Your task to perform on an android device: Go to Amazon Image 0: 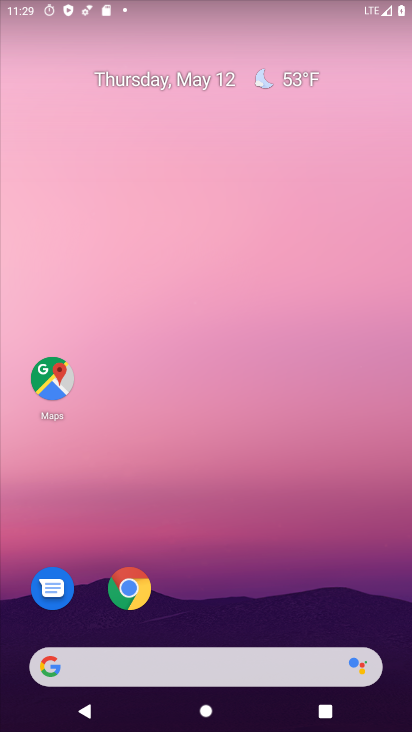
Step 0: click (130, 587)
Your task to perform on an android device: Go to Amazon Image 1: 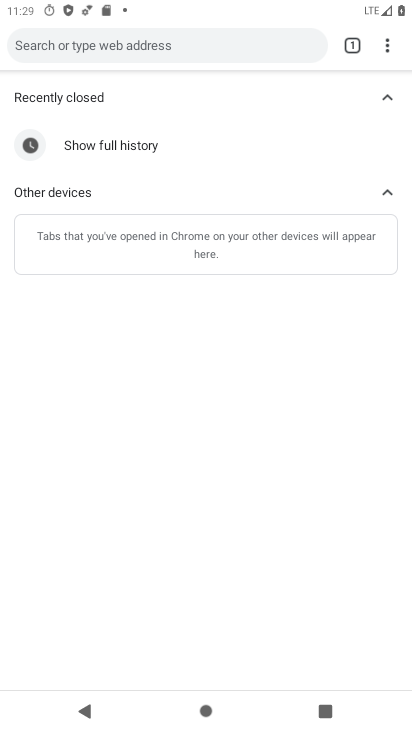
Step 1: click (128, 47)
Your task to perform on an android device: Go to Amazon Image 2: 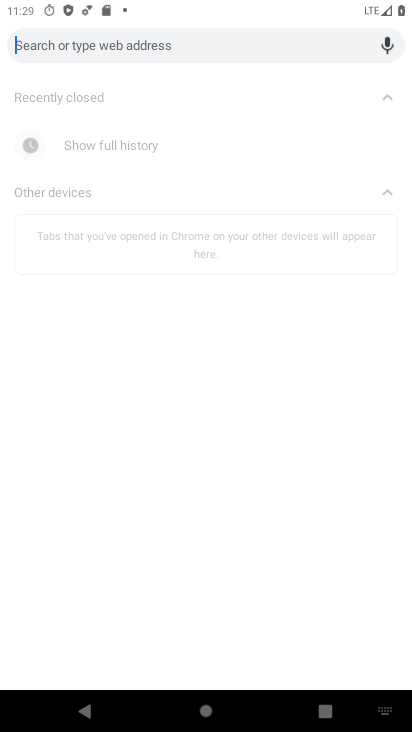
Step 2: type "amazon"
Your task to perform on an android device: Go to Amazon Image 3: 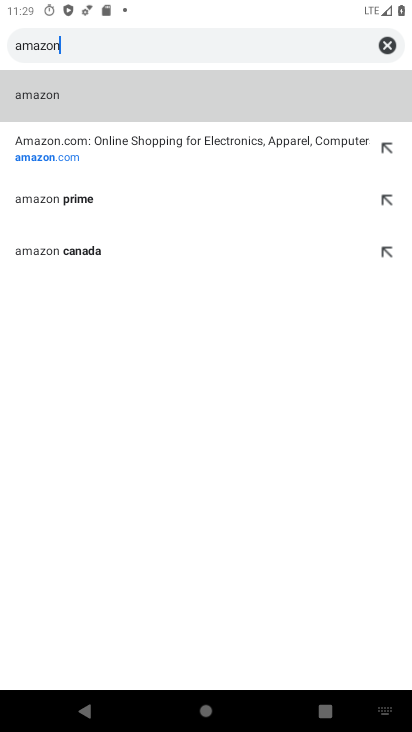
Step 3: click (56, 145)
Your task to perform on an android device: Go to Amazon Image 4: 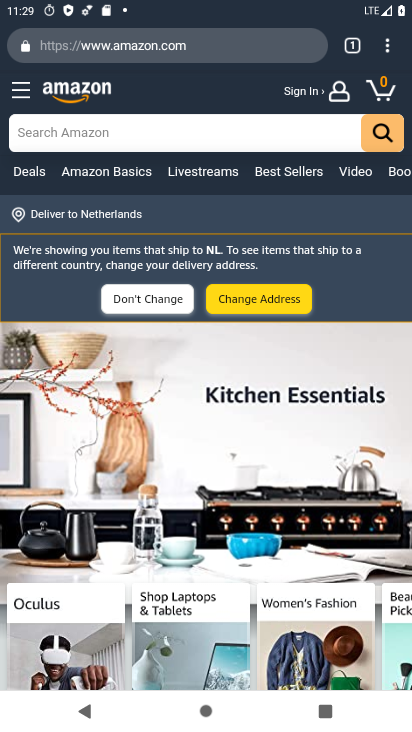
Step 4: task complete